Your task to perform on an android device: star an email in the gmail app Image 0: 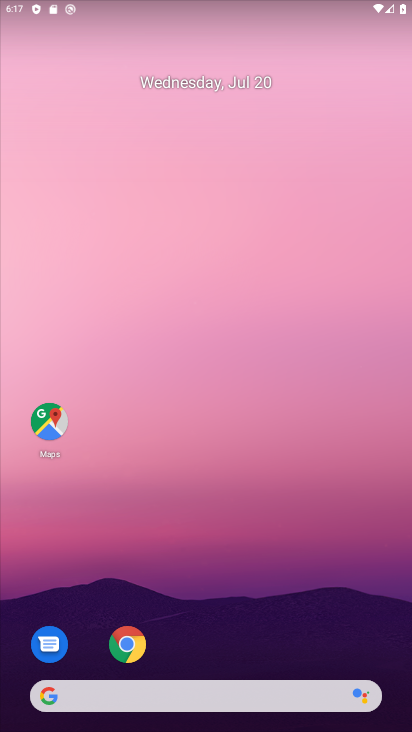
Step 0: press home button
Your task to perform on an android device: star an email in the gmail app Image 1: 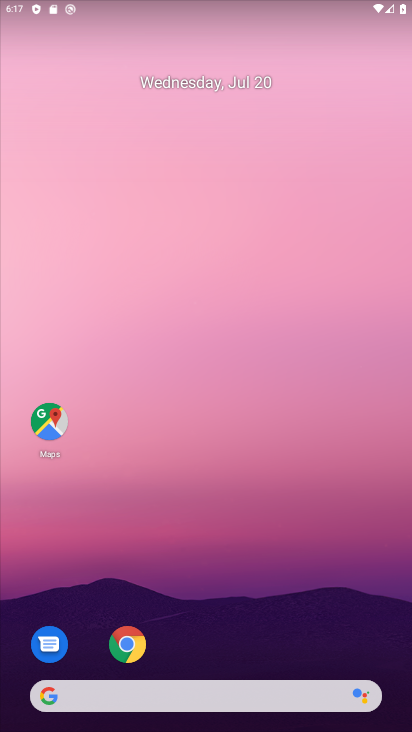
Step 1: drag from (198, 640) to (230, 6)
Your task to perform on an android device: star an email in the gmail app Image 2: 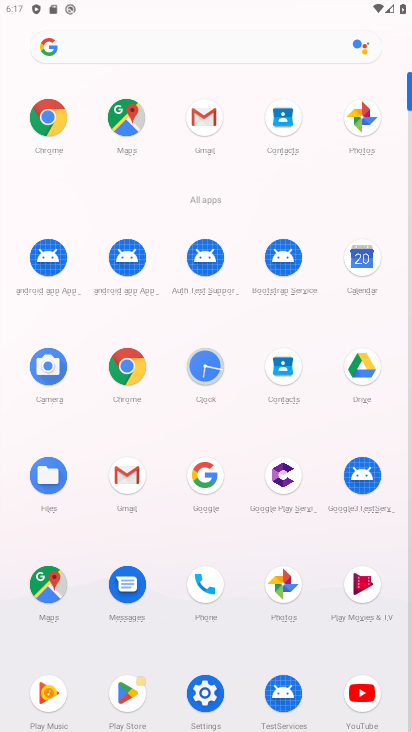
Step 2: click (196, 120)
Your task to perform on an android device: star an email in the gmail app Image 3: 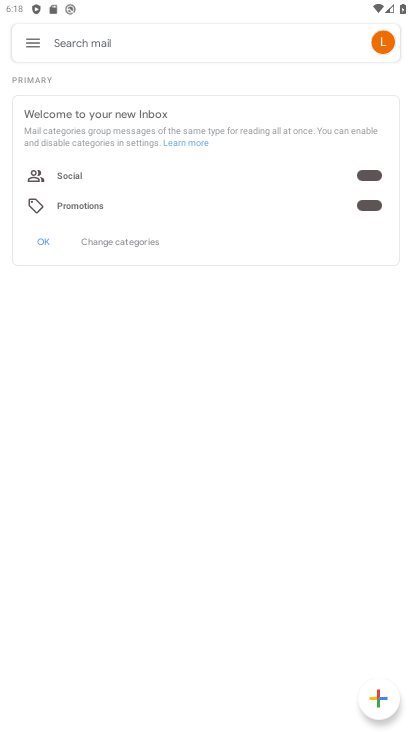
Step 3: click (30, 47)
Your task to perform on an android device: star an email in the gmail app Image 4: 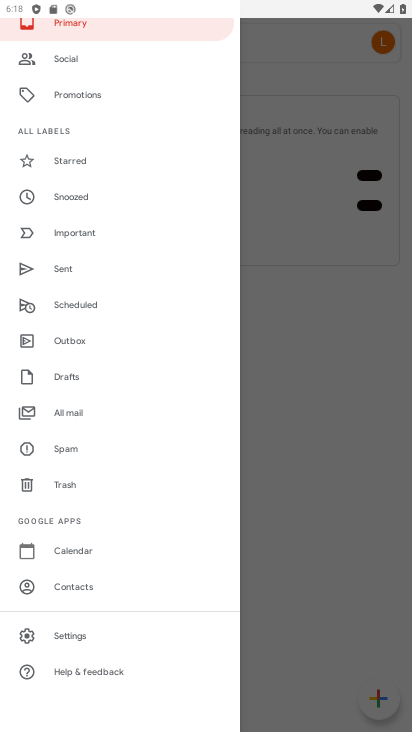
Step 4: click (72, 417)
Your task to perform on an android device: star an email in the gmail app Image 5: 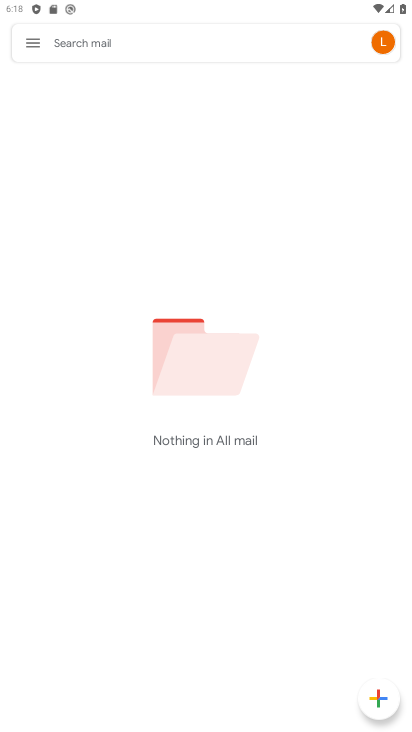
Step 5: task complete